Your task to perform on an android device: find which apps use the phone's location Image 0: 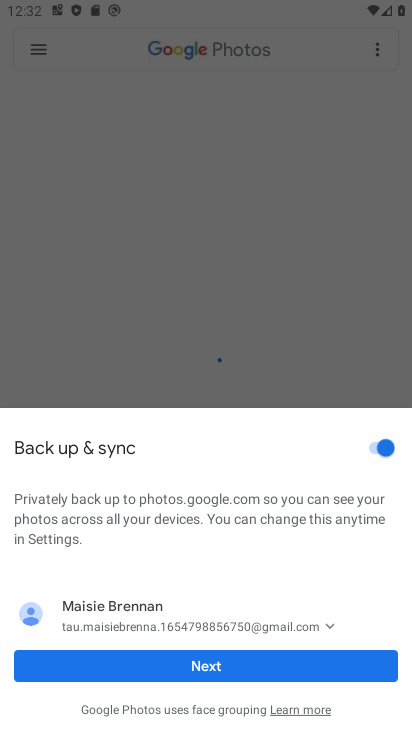
Step 0: press home button
Your task to perform on an android device: find which apps use the phone's location Image 1: 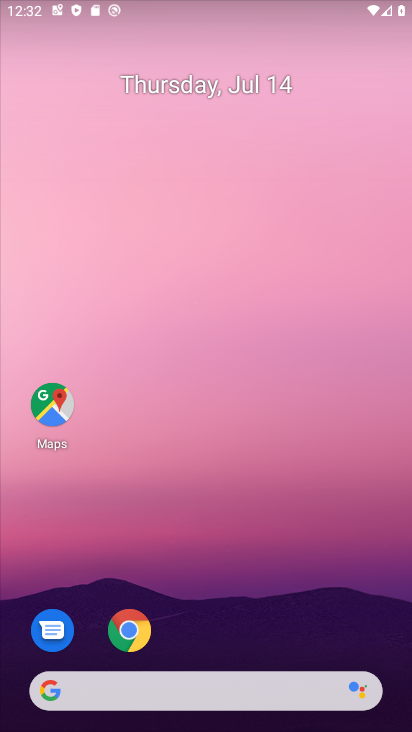
Step 1: drag from (202, 587) to (242, 331)
Your task to perform on an android device: find which apps use the phone's location Image 2: 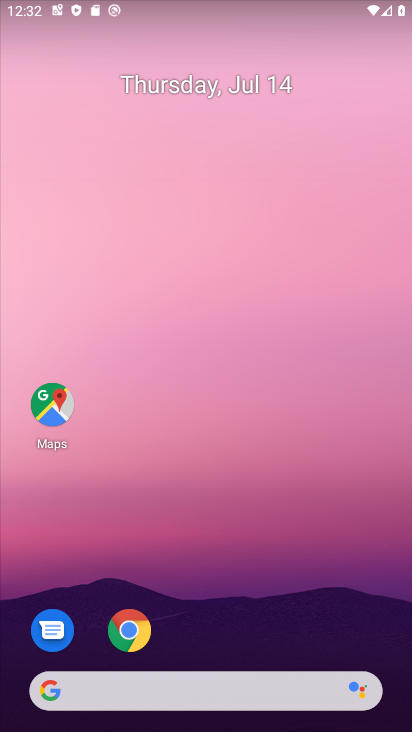
Step 2: drag from (181, 649) to (195, 164)
Your task to perform on an android device: find which apps use the phone's location Image 3: 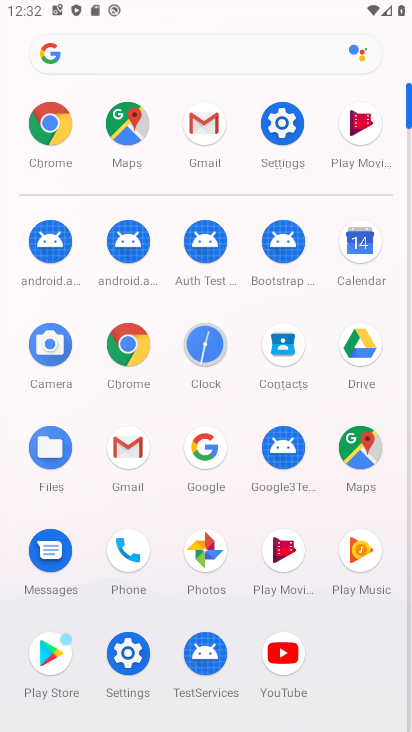
Step 3: click (293, 136)
Your task to perform on an android device: find which apps use the phone's location Image 4: 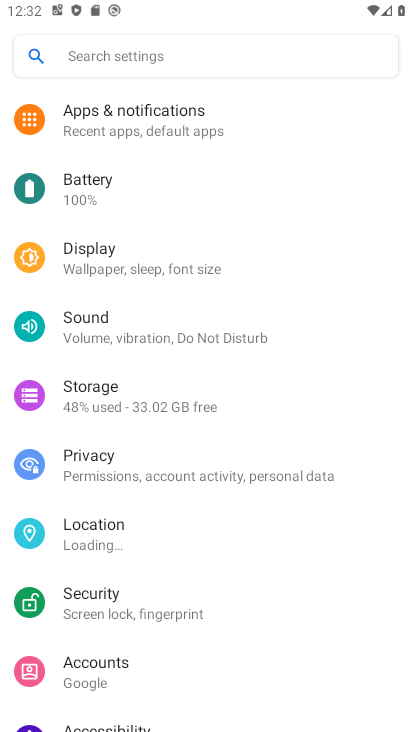
Step 4: drag from (90, 661) to (134, 284)
Your task to perform on an android device: find which apps use the phone's location Image 5: 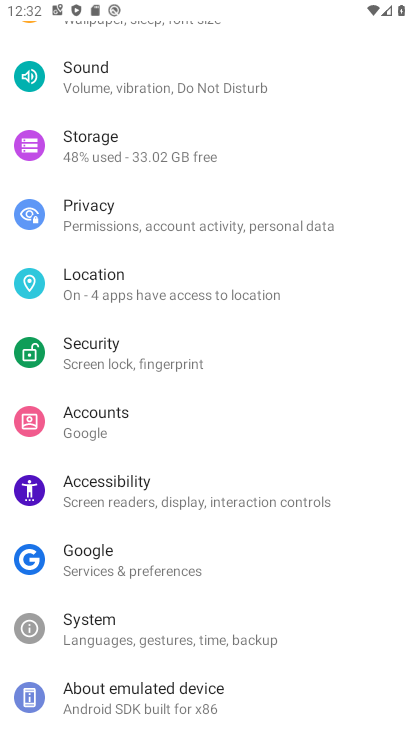
Step 5: click (150, 292)
Your task to perform on an android device: find which apps use the phone's location Image 6: 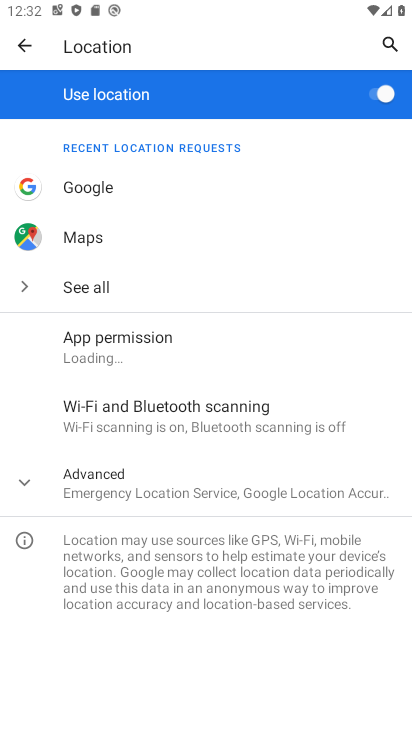
Step 6: click (114, 363)
Your task to perform on an android device: find which apps use the phone's location Image 7: 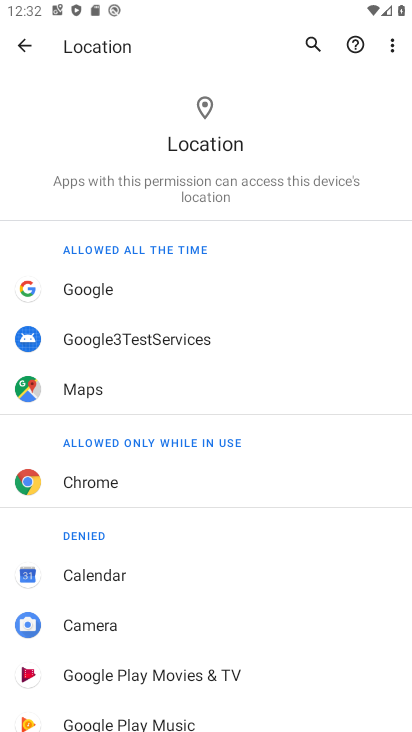
Step 7: task complete